Your task to perform on an android device: turn off improve location accuracy Image 0: 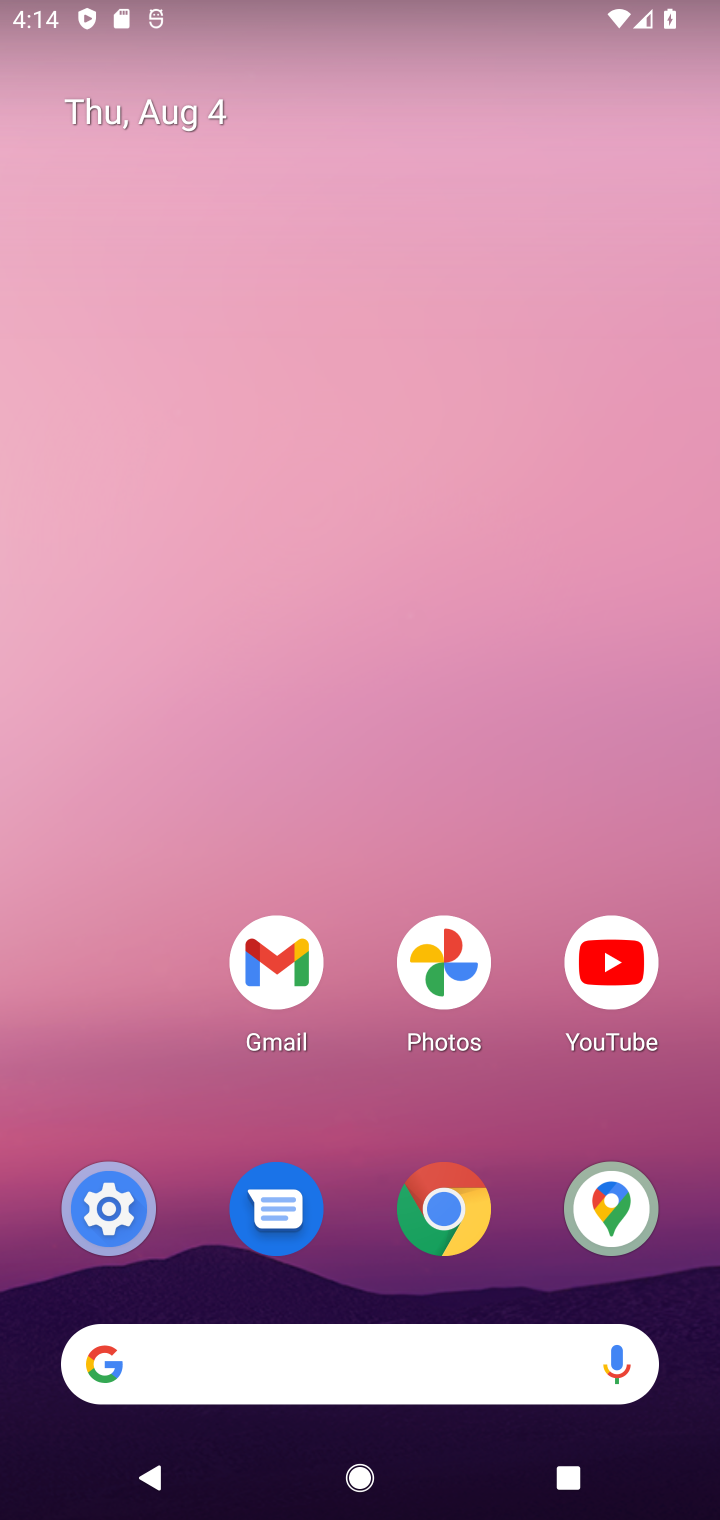
Step 0: click (129, 1212)
Your task to perform on an android device: turn off improve location accuracy Image 1: 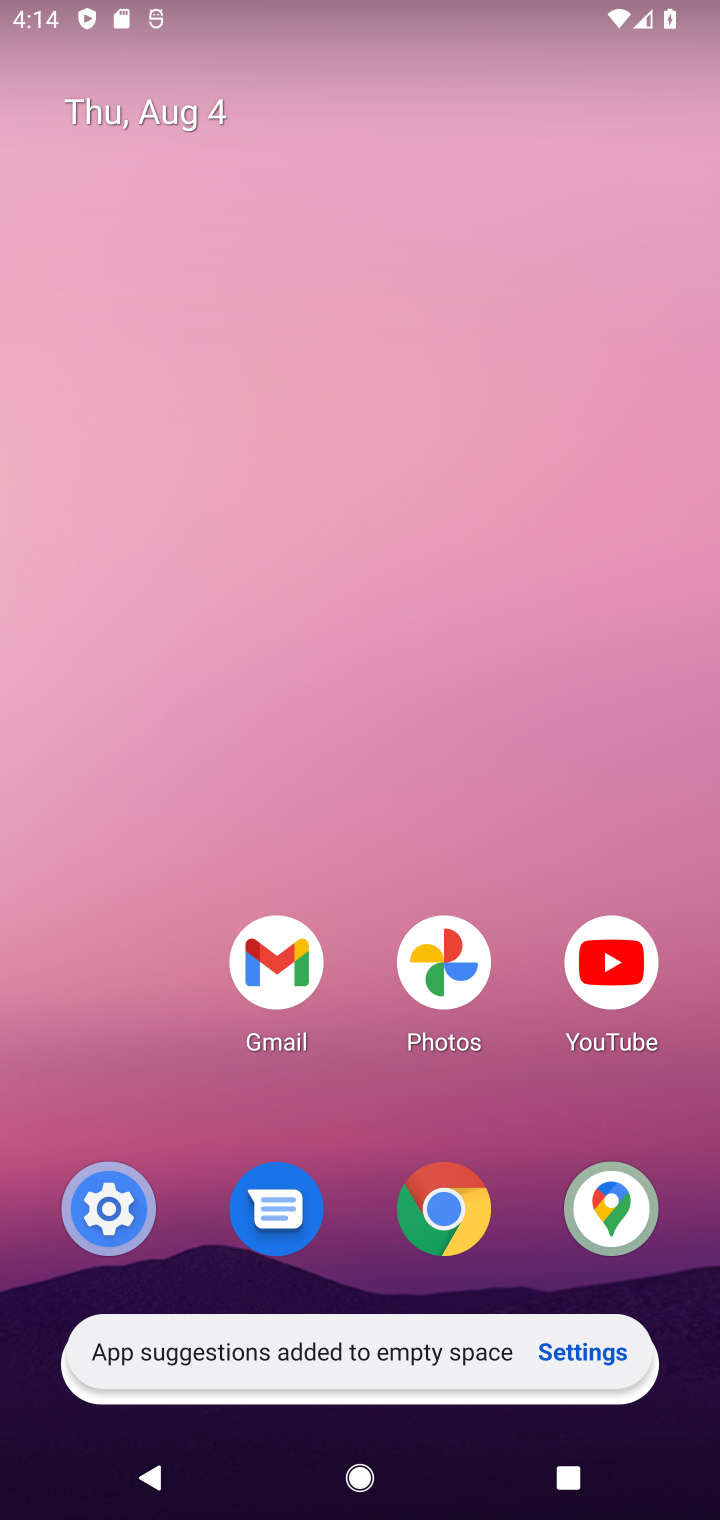
Step 1: click (116, 1205)
Your task to perform on an android device: turn off improve location accuracy Image 2: 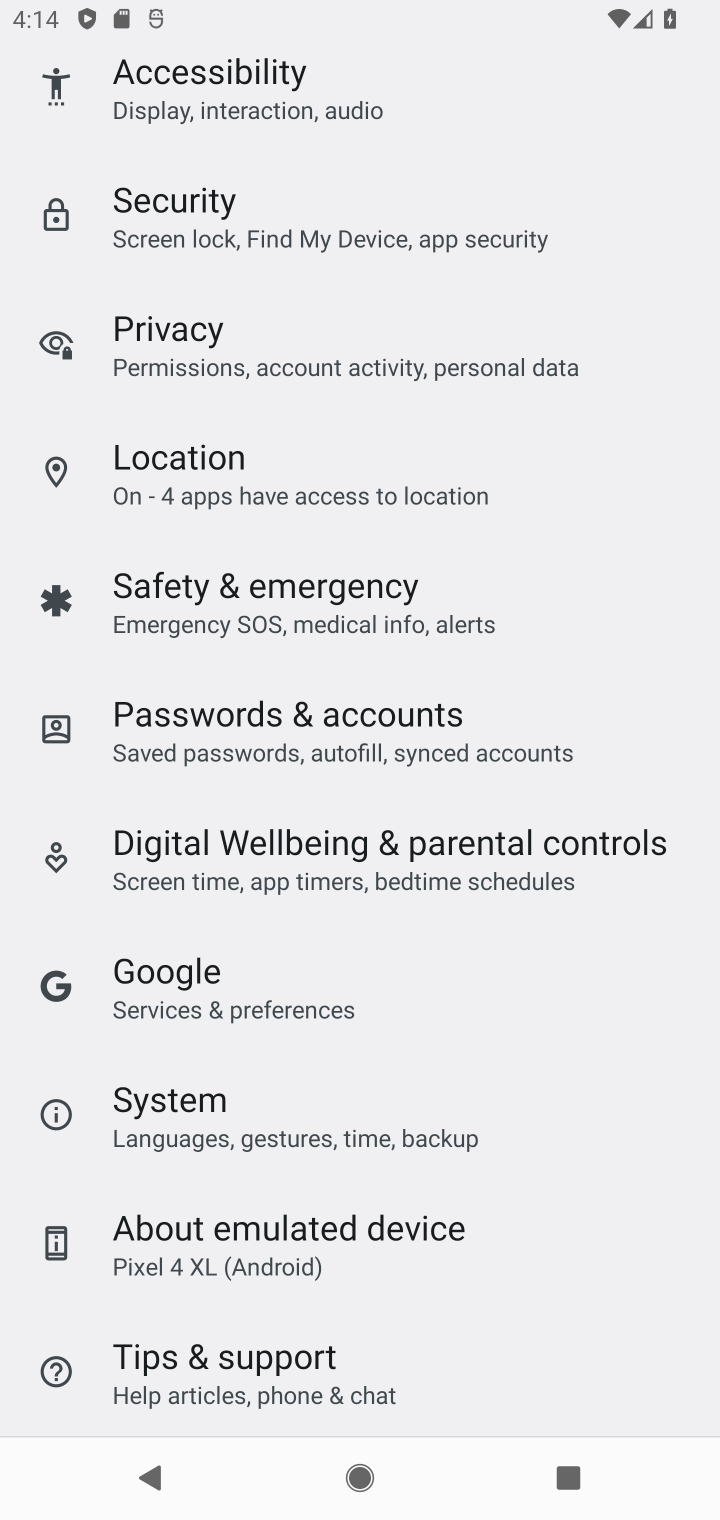
Step 2: click (164, 467)
Your task to perform on an android device: turn off improve location accuracy Image 3: 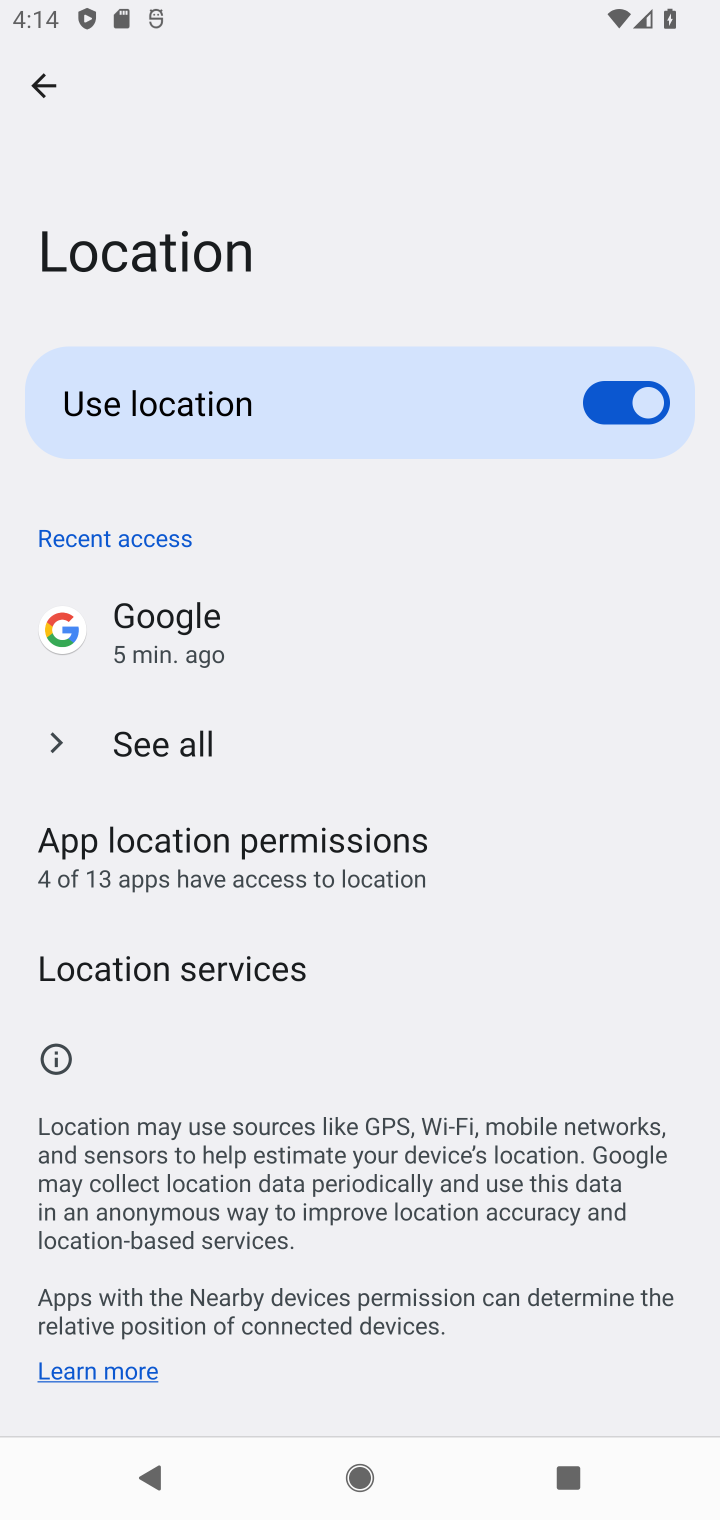
Step 3: click (111, 980)
Your task to perform on an android device: turn off improve location accuracy Image 4: 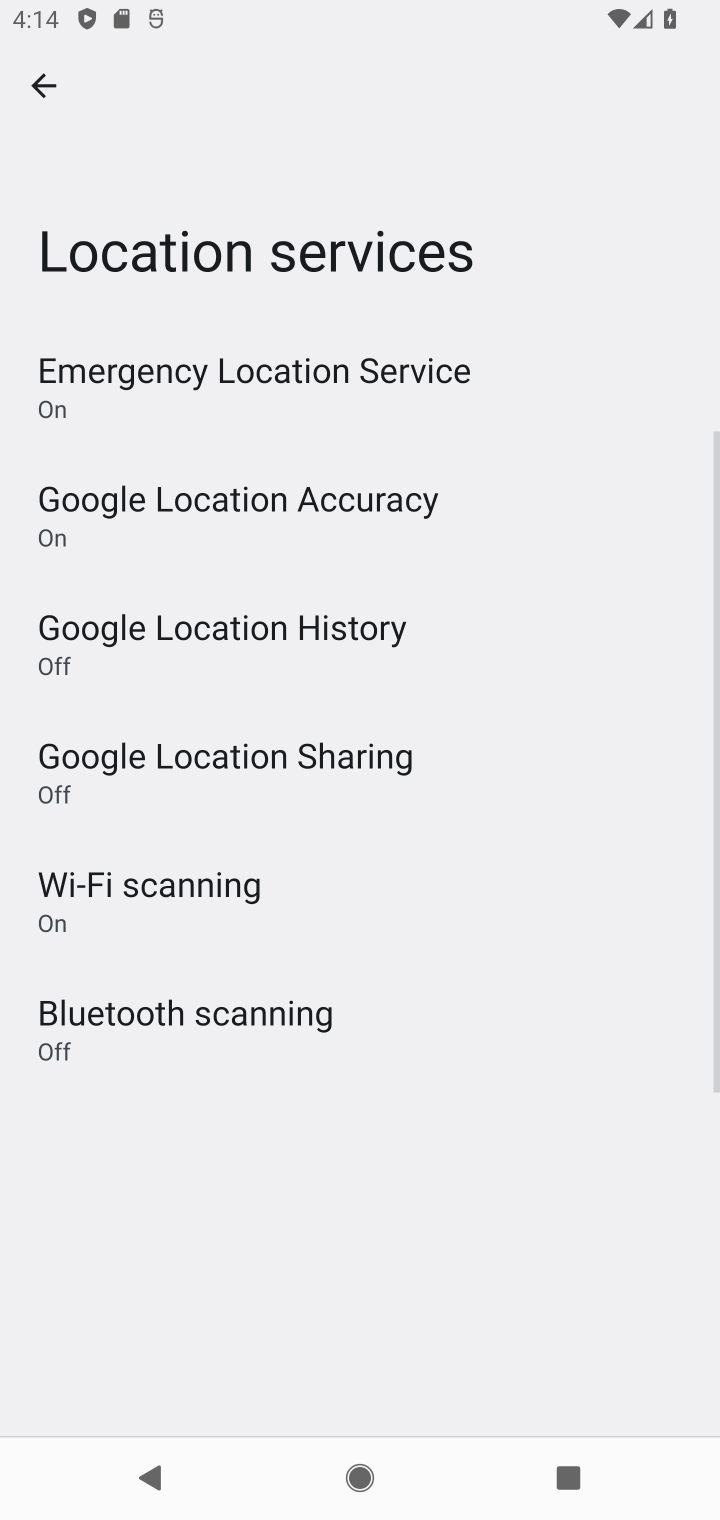
Step 4: click (403, 506)
Your task to perform on an android device: turn off improve location accuracy Image 5: 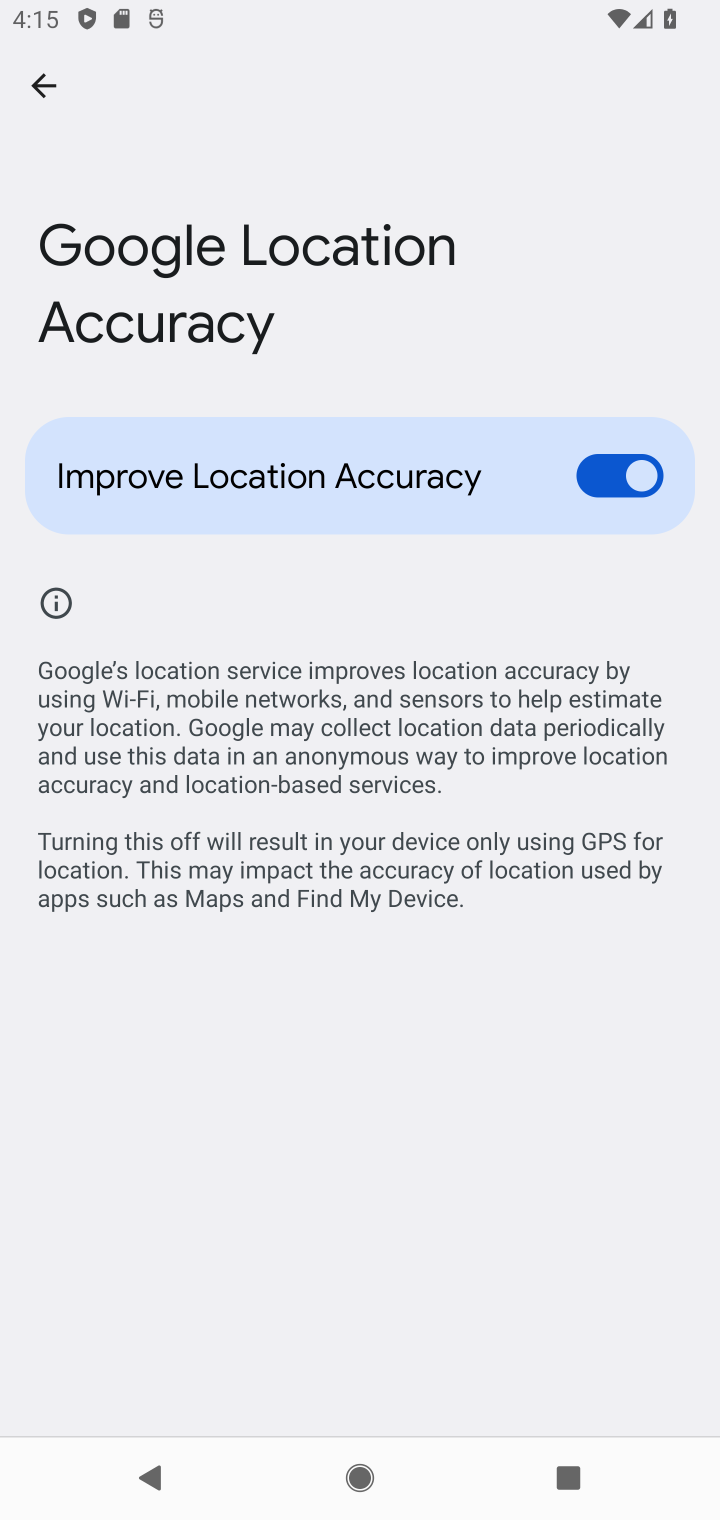
Step 5: click (597, 479)
Your task to perform on an android device: turn off improve location accuracy Image 6: 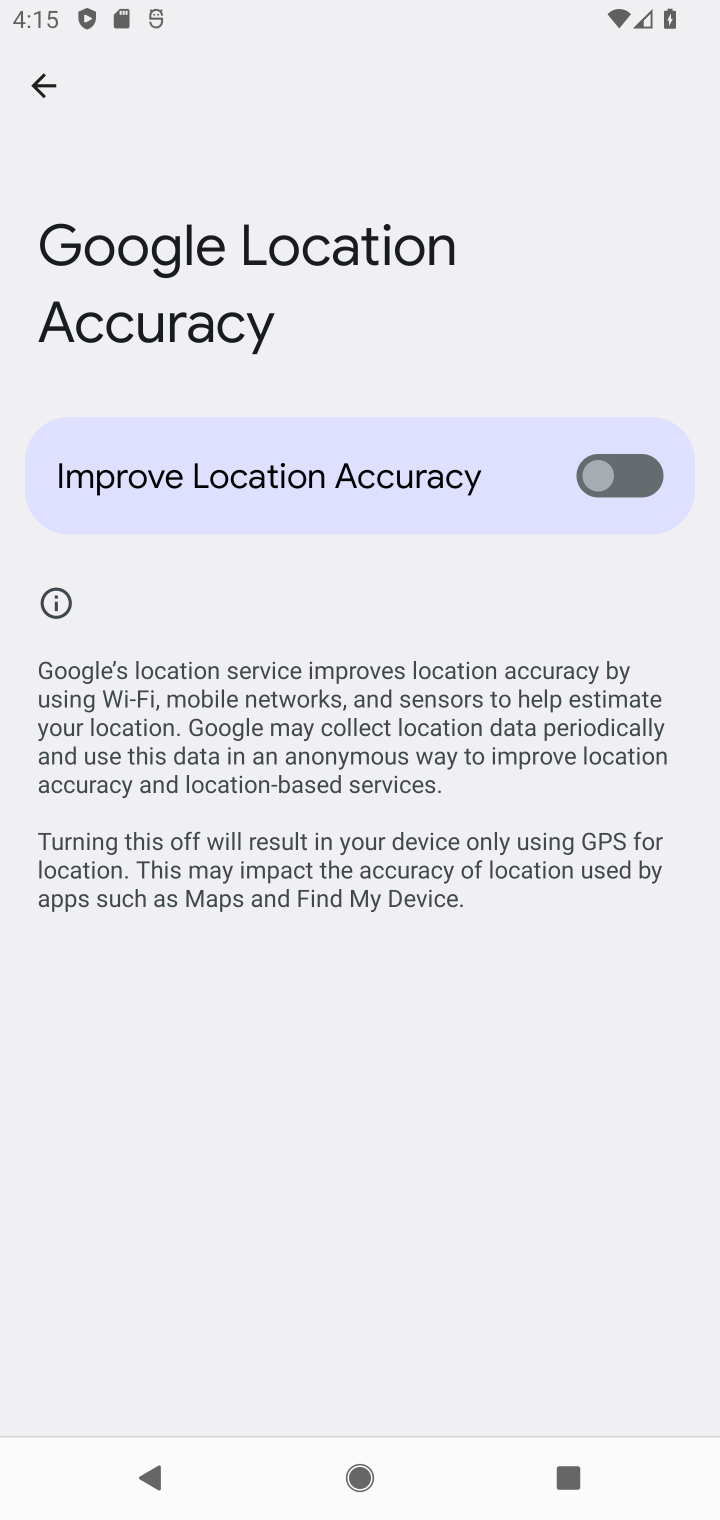
Step 6: task complete